Your task to perform on an android device: install app "Gmail" Image 0: 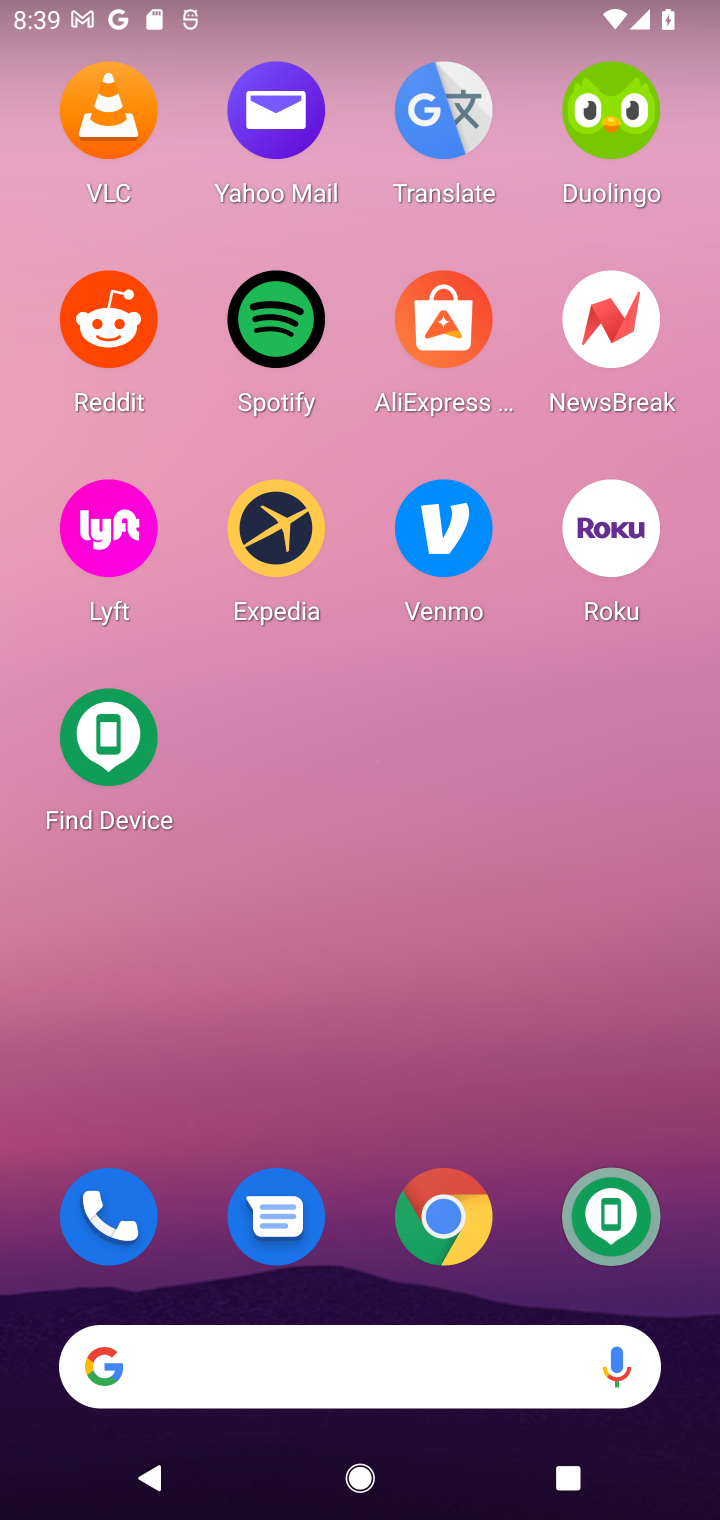
Step 0: press home button
Your task to perform on an android device: install app "Gmail" Image 1: 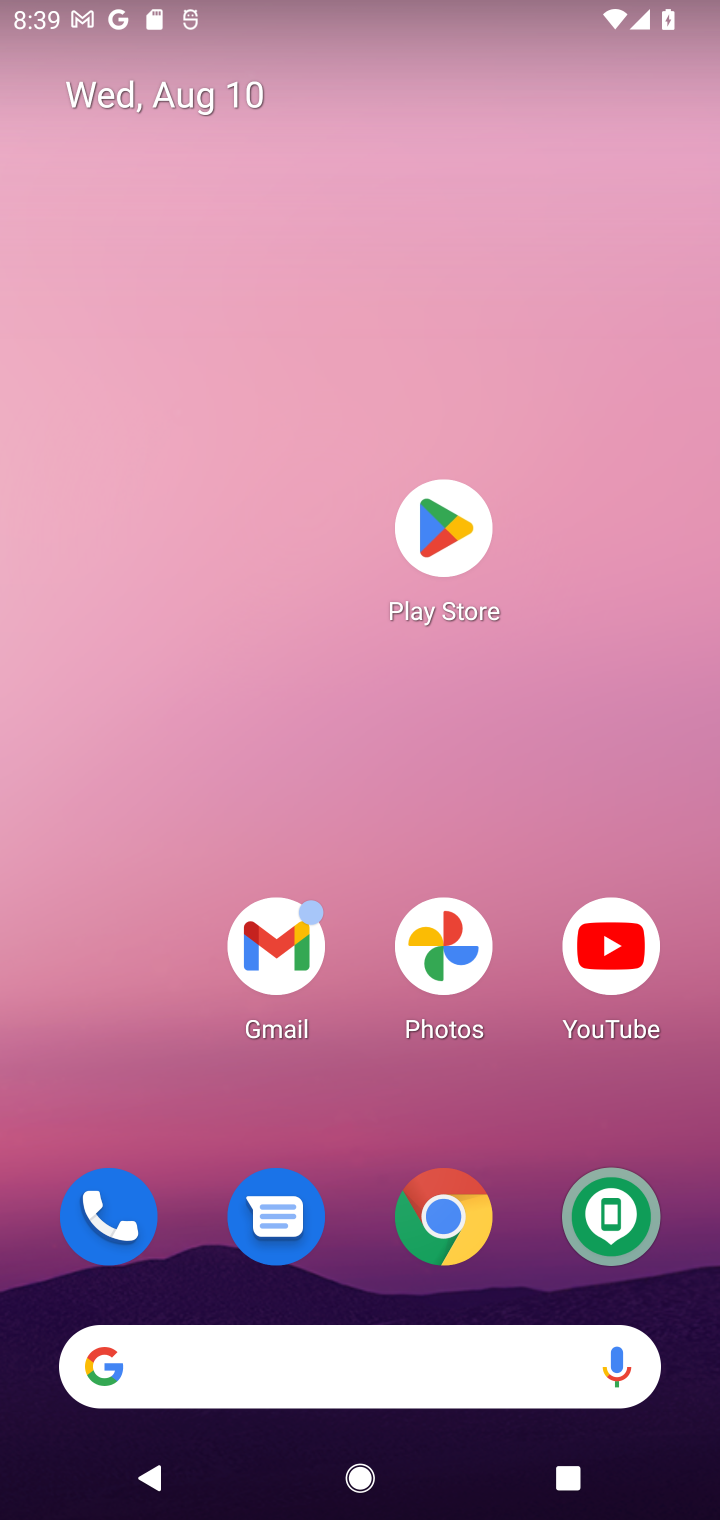
Step 1: click (436, 534)
Your task to perform on an android device: install app "Gmail" Image 2: 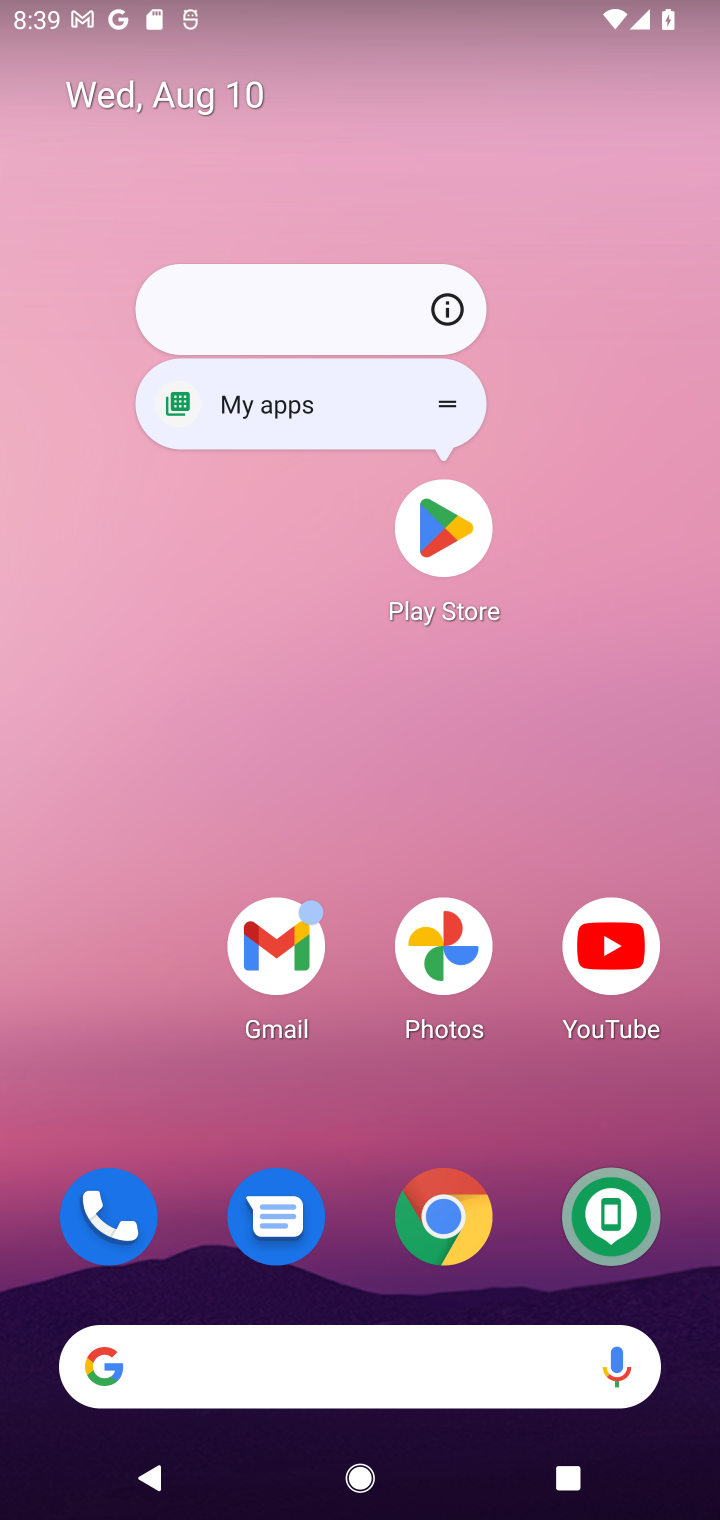
Step 2: click (436, 537)
Your task to perform on an android device: install app "Gmail" Image 3: 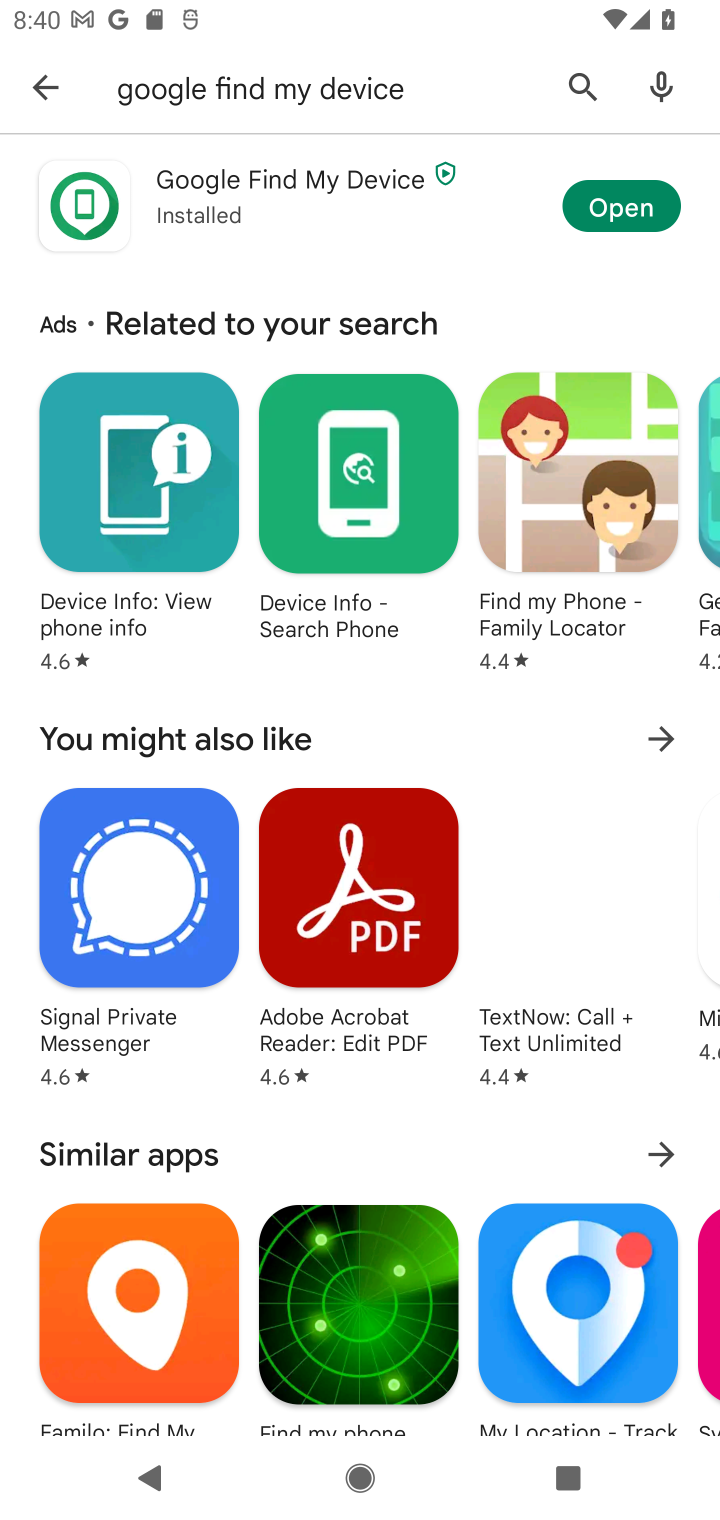
Step 3: click (576, 87)
Your task to perform on an android device: install app "Gmail" Image 4: 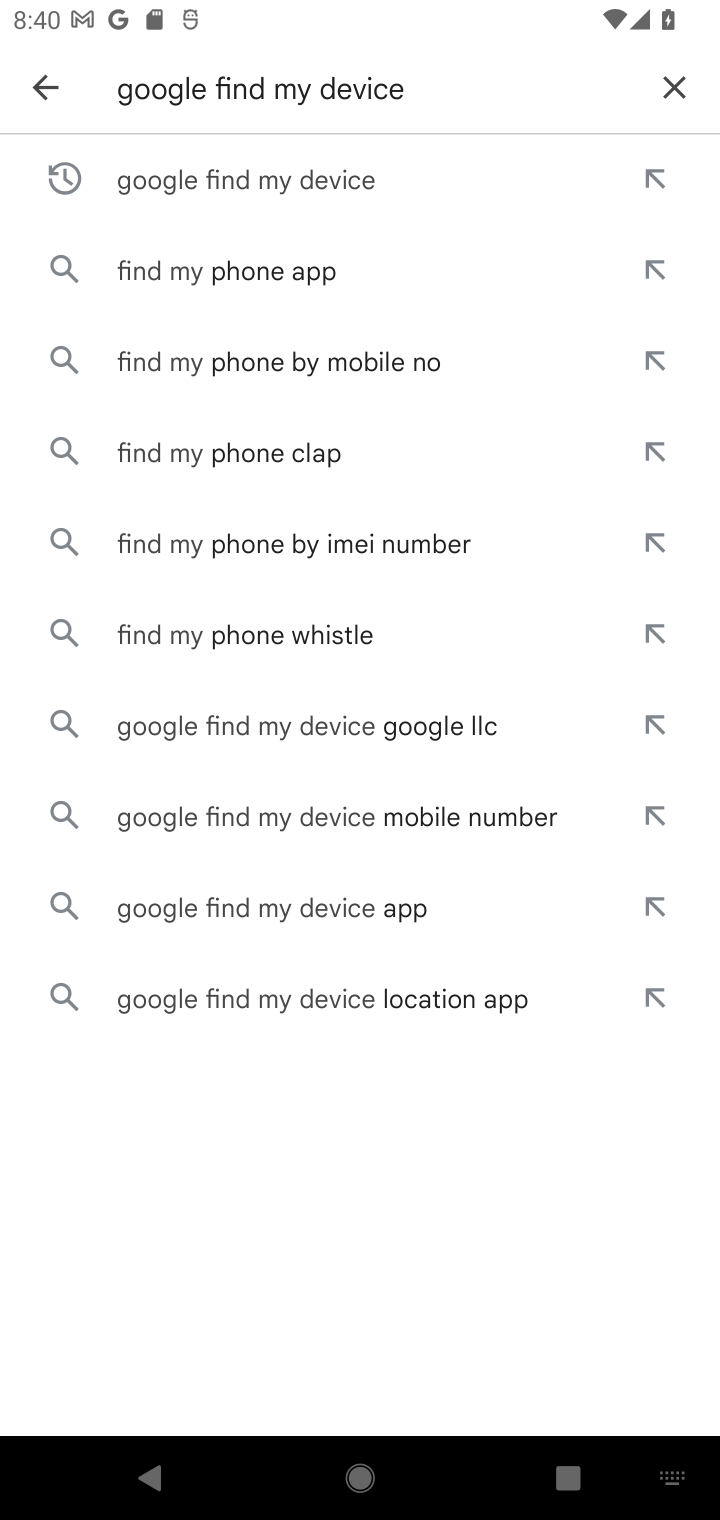
Step 4: click (670, 93)
Your task to perform on an android device: install app "Gmail" Image 5: 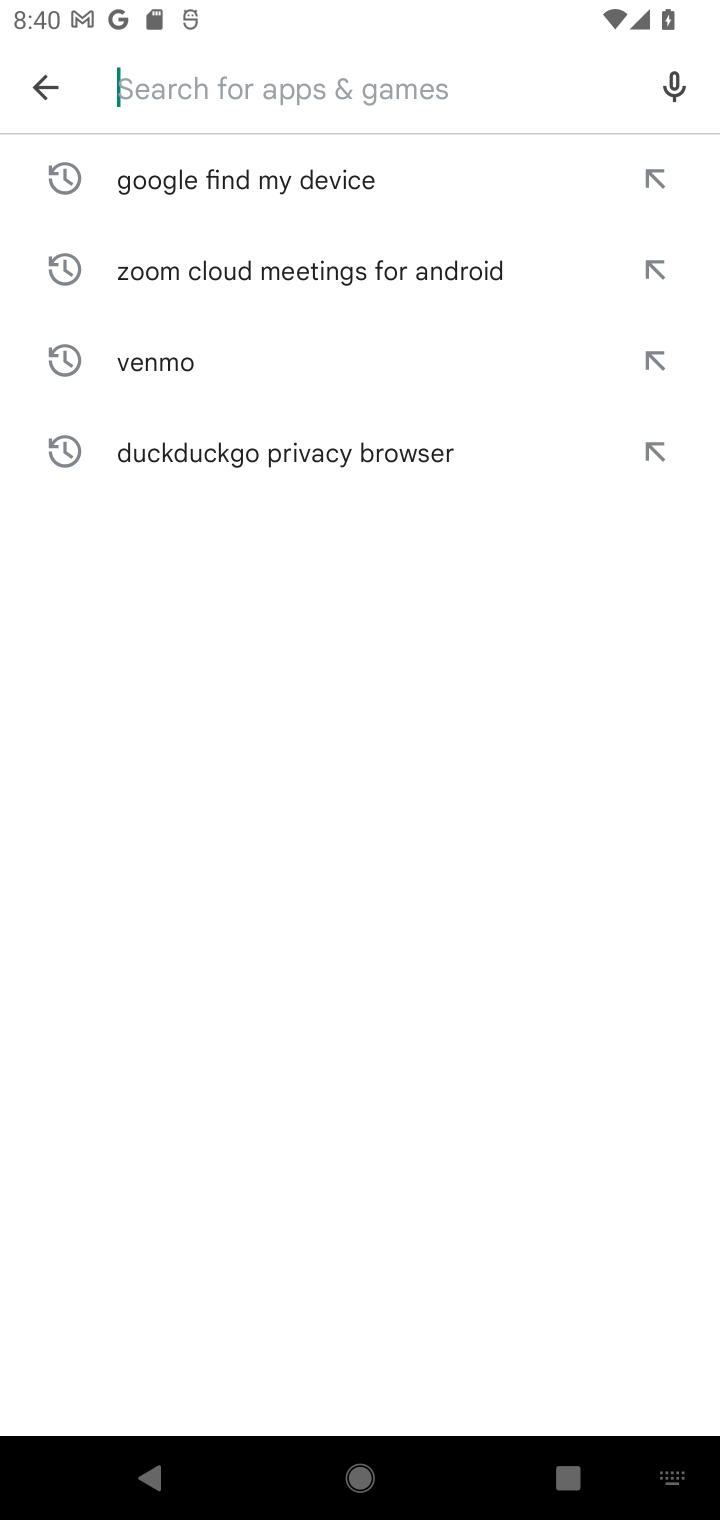
Step 5: type "Gmail"
Your task to perform on an android device: install app "Gmail" Image 6: 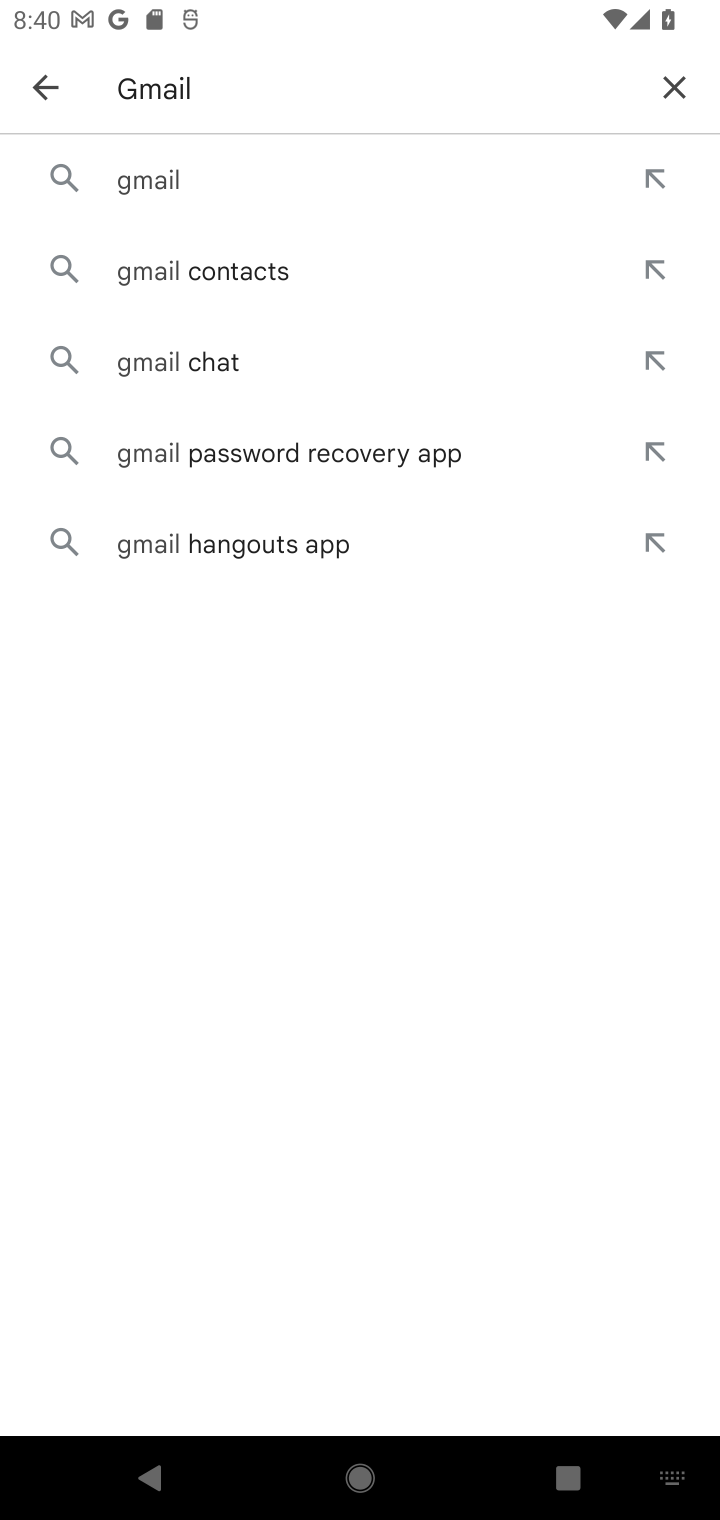
Step 6: click (221, 186)
Your task to perform on an android device: install app "Gmail" Image 7: 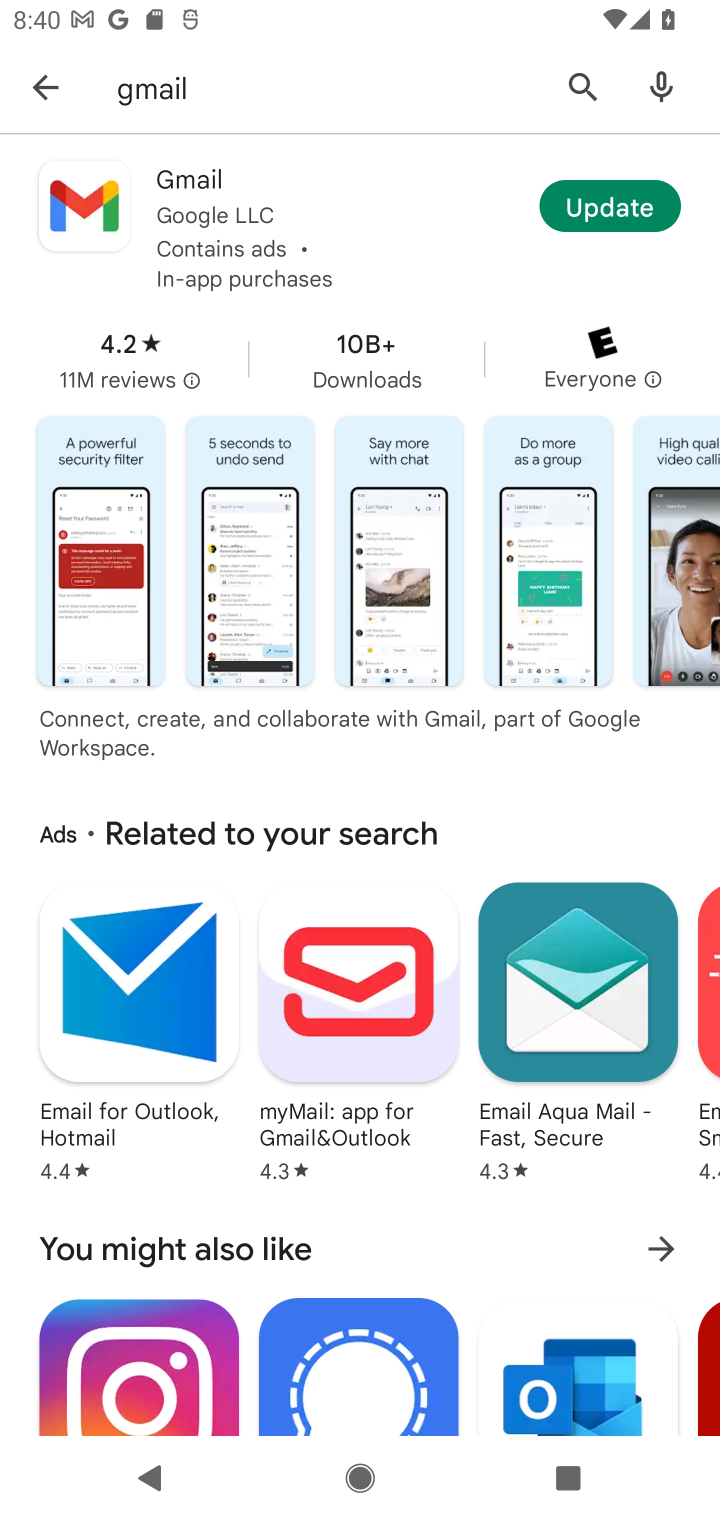
Step 7: click (190, 235)
Your task to perform on an android device: install app "Gmail" Image 8: 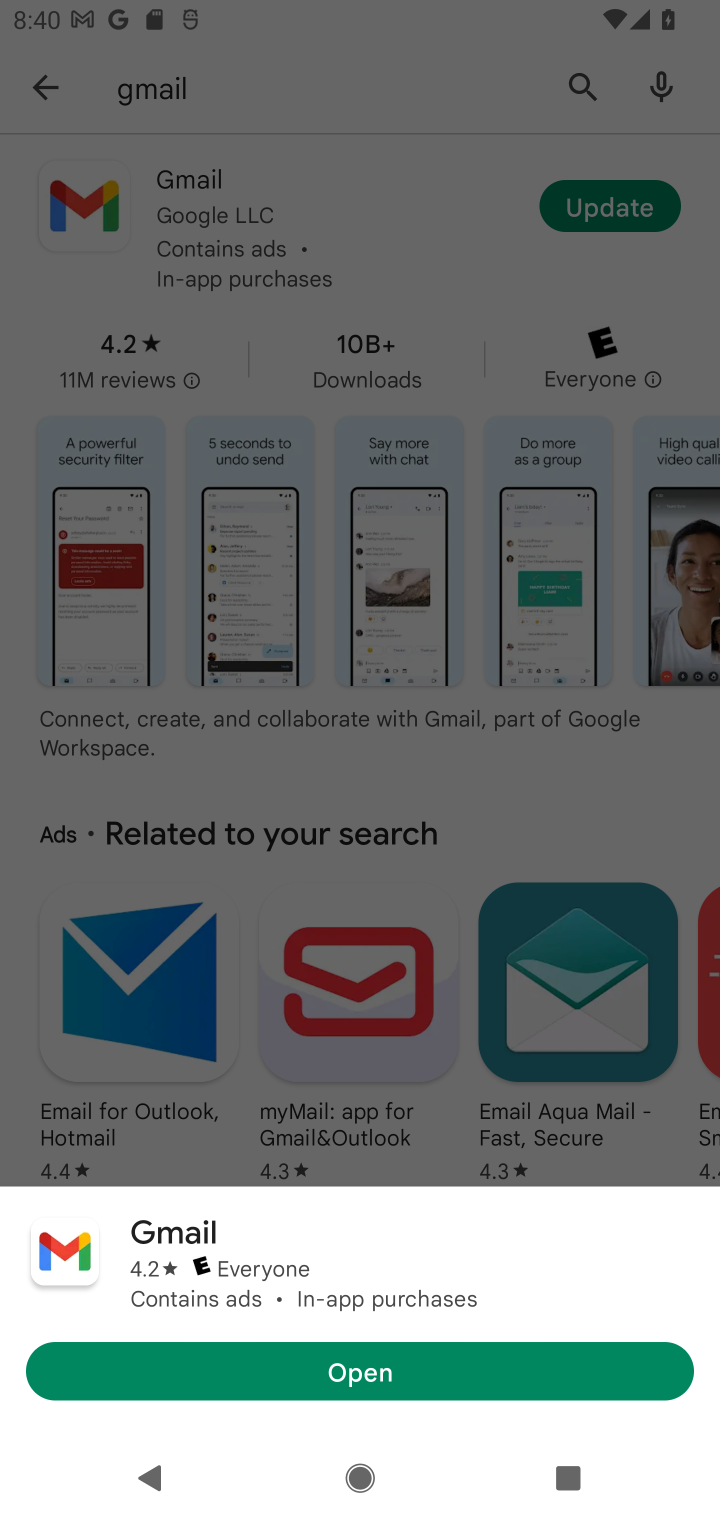
Step 8: task complete